Your task to perform on an android device: Go to Google maps Image 0: 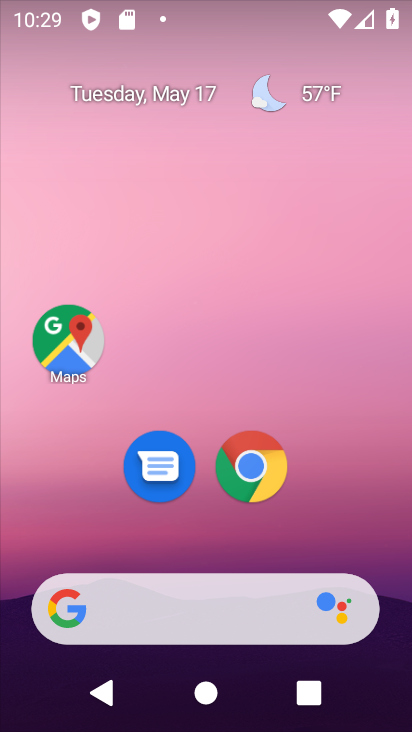
Step 0: drag from (202, 558) to (210, 58)
Your task to perform on an android device: Go to Google maps Image 1: 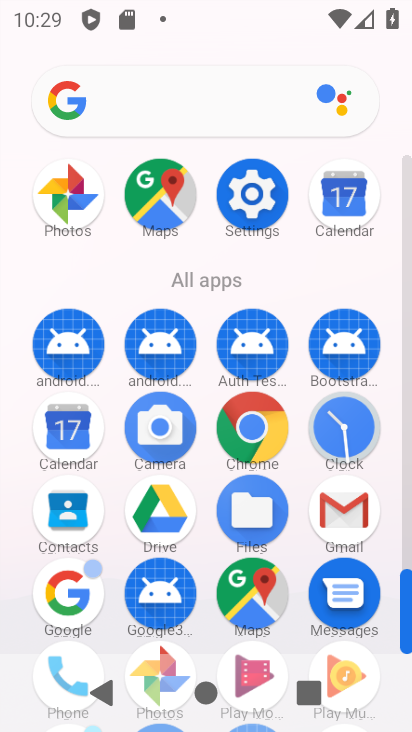
Step 1: click (238, 593)
Your task to perform on an android device: Go to Google maps Image 2: 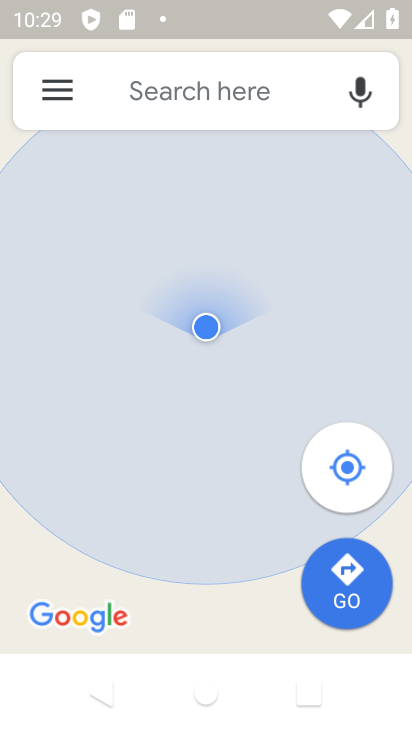
Step 2: task complete